Your task to perform on an android device: turn off priority inbox in the gmail app Image 0: 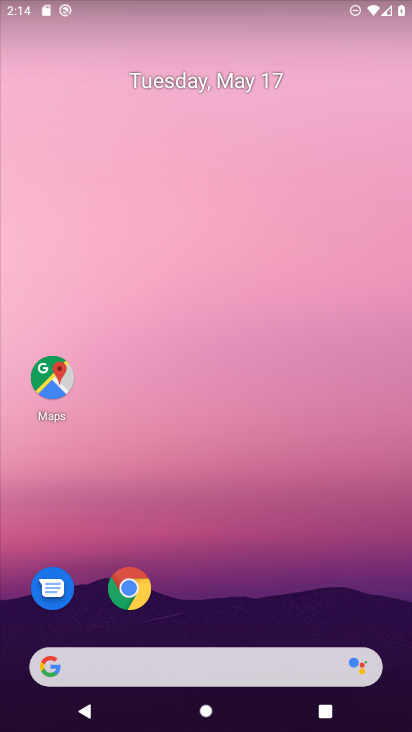
Step 0: drag from (190, 566) to (87, 57)
Your task to perform on an android device: turn off priority inbox in the gmail app Image 1: 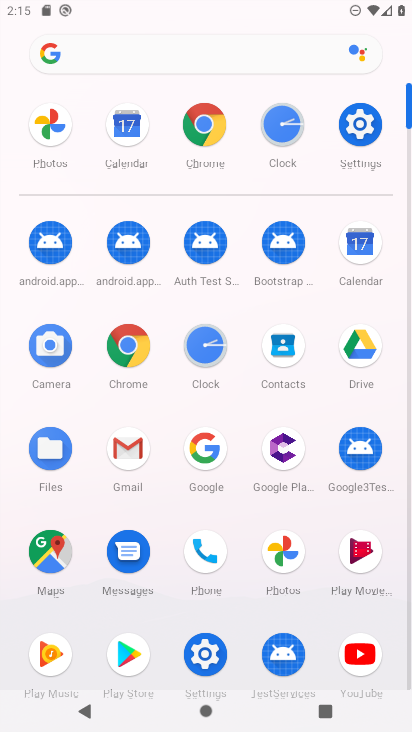
Step 1: click (113, 450)
Your task to perform on an android device: turn off priority inbox in the gmail app Image 2: 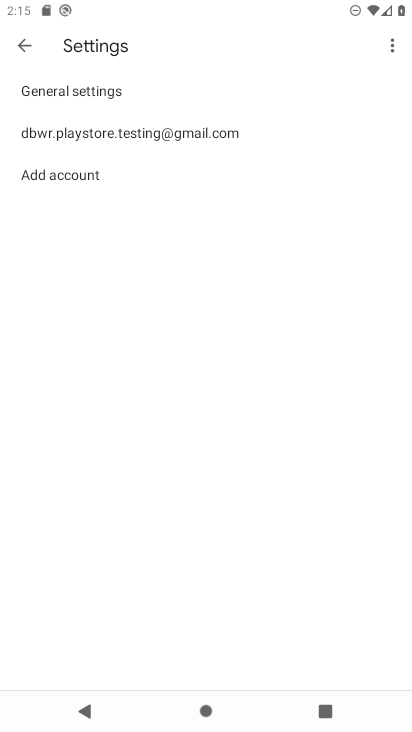
Step 2: click (231, 133)
Your task to perform on an android device: turn off priority inbox in the gmail app Image 3: 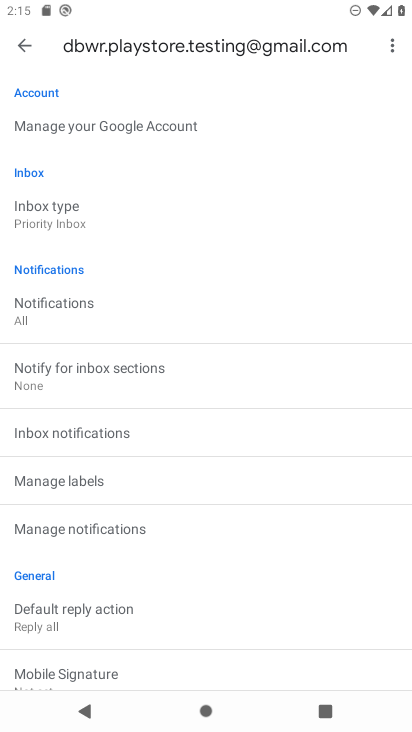
Step 3: click (53, 214)
Your task to perform on an android device: turn off priority inbox in the gmail app Image 4: 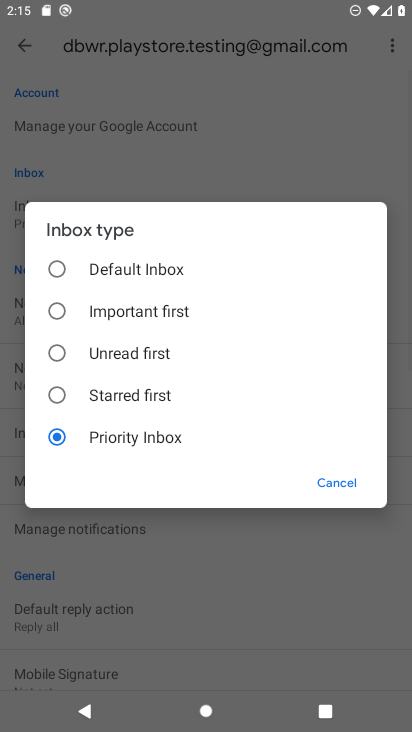
Step 4: click (50, 268)
Your task to perform on an android device: turn off priority inbox in the gmail app Image 5: 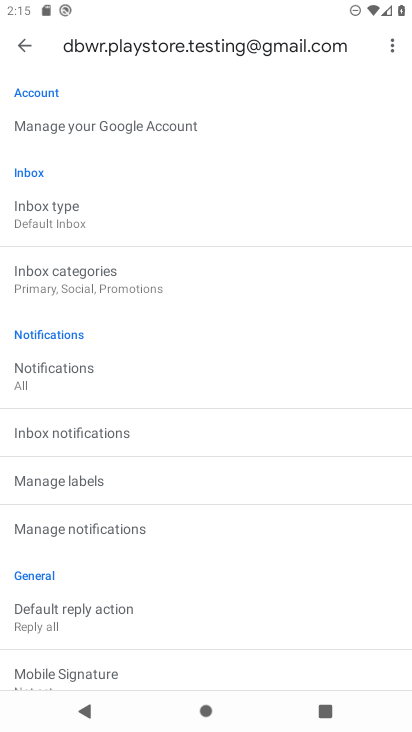
Step 5: task complete